Your task to perform on an android device: Go to privacy settings Image 0: 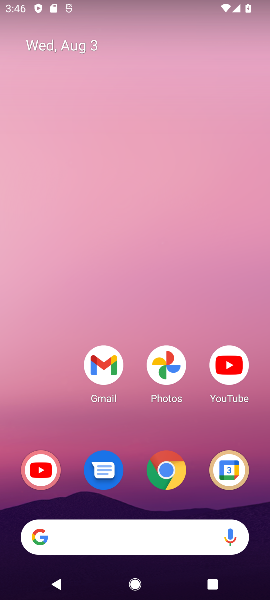
Step 0: drag from (191, 494) to (200, 165)
Your task to perform on an android device: Go to privacy settings Image 1: 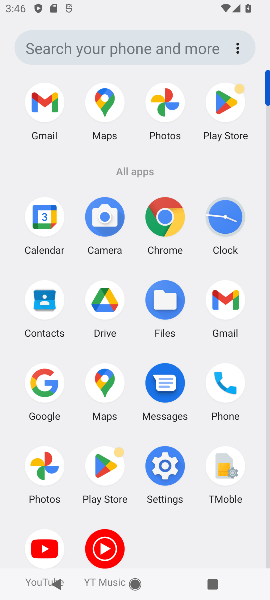
Step 1: click (160, 468)
Your task to perform on an android device: Go to privacy settings Image 2: 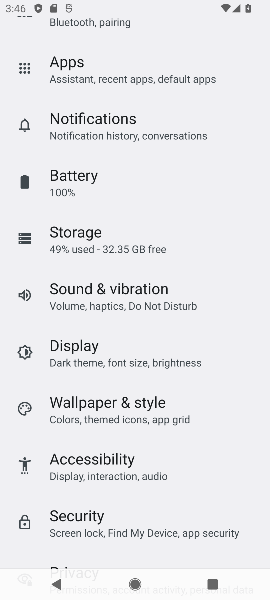
Step 2: drag from (149, 506) to (190, 158)
Your task to perform on an android device: Go to privacy settings Image 3: 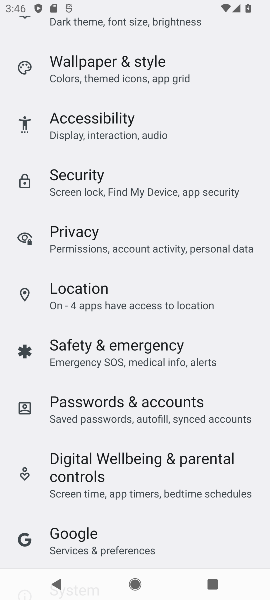
Step 3: drag from (129, 530) to (175, 475)
Your task to perform on an android device: Go to privacy settings Image 4: 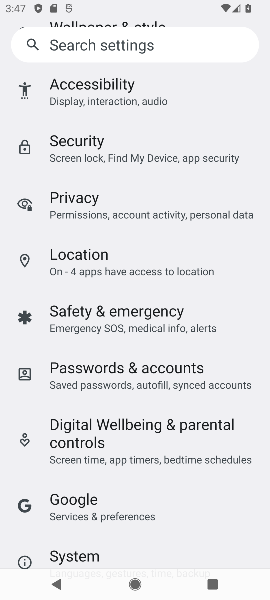
Step 4: click (126, 214)
Your task to perform on an android device: Go to privacy settings Image 5: 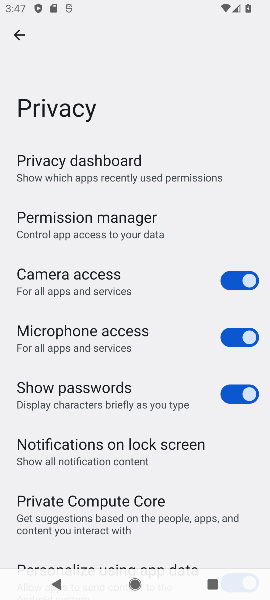
Step 5: task complete